Your task to perform on an android device: Open Reddit.com Image 0: 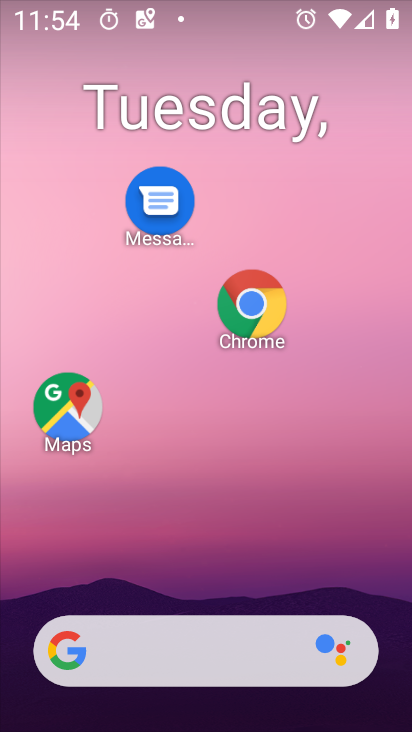
Step 0: drag from (329, 326) to (363, 198)
Your task to perform on an android device: Open Reddit.com Image 1: 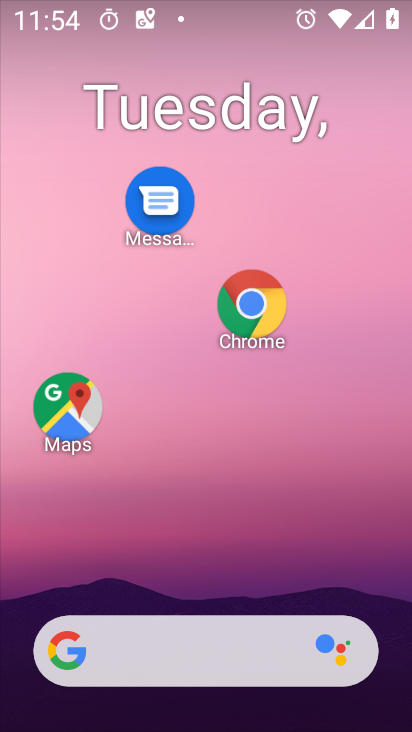
Step 1: drag from (279, 539) to (379, 175)
Your task to perform on an android device: Open Reddit.com Image 2: 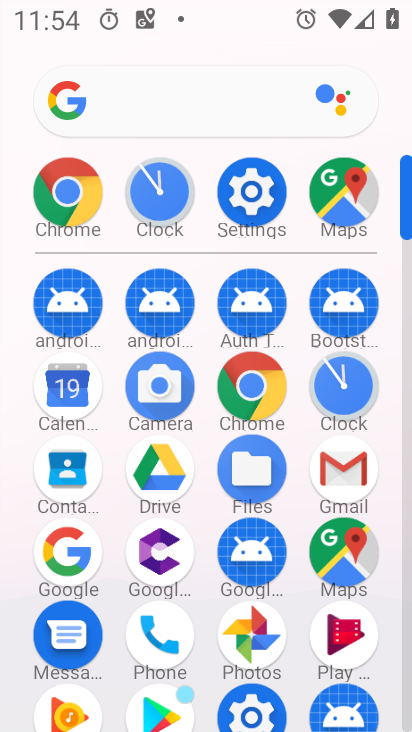
Step 2: click (67, 184)
Your task to perform on an android device: Open Reddit.com Image 3: 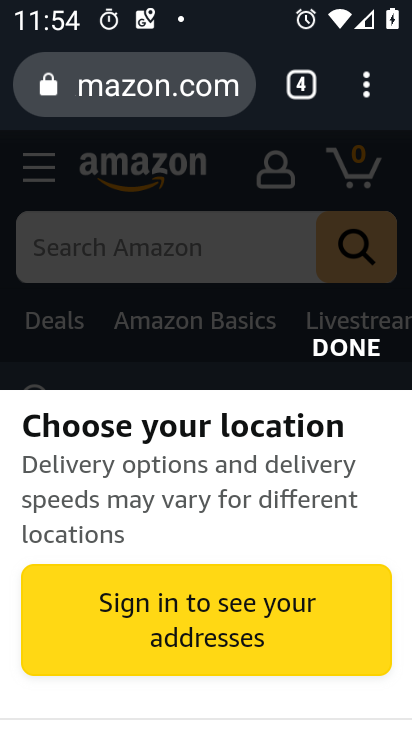
Step 3: click (370, 83)
Your task to perform on an android device: Open Reddit.com Image 4: 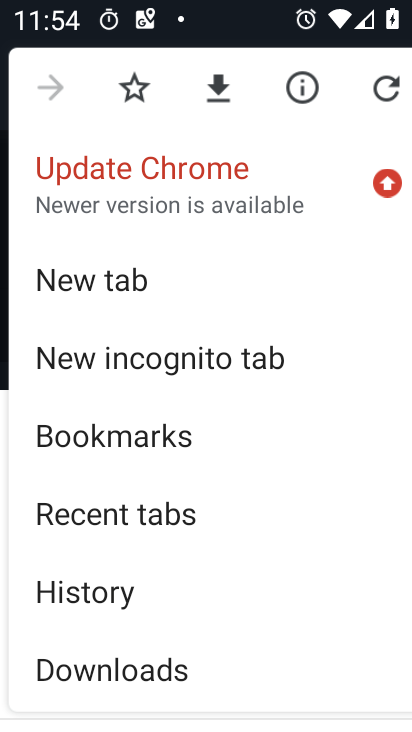
Step 4: click (162, 277)
Your task to perform on an android device: Open Reddit.com Image 5: 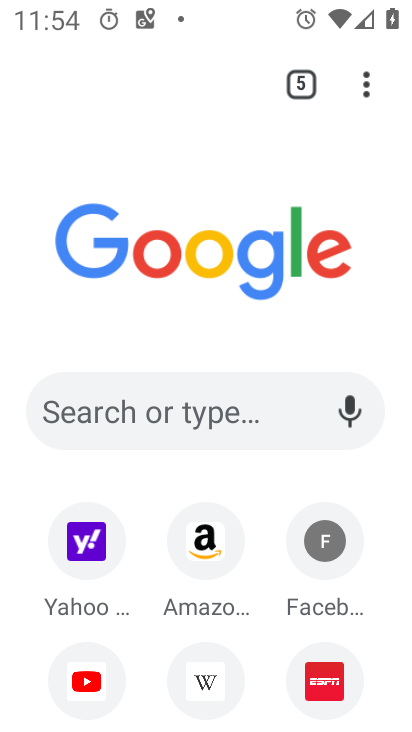
Step 5: click (148, 417)
Your task to perform on an android device: Open Reddit.com Image 6: 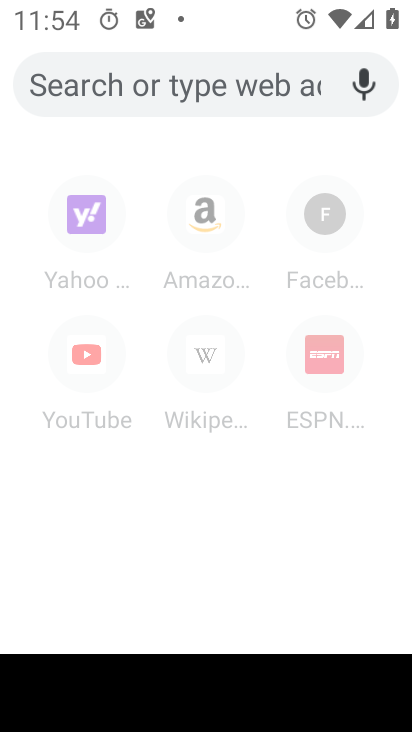
Step 6: type "Reddit.com"
Your task to perform on an android device: Open Reddit.com Image 7: 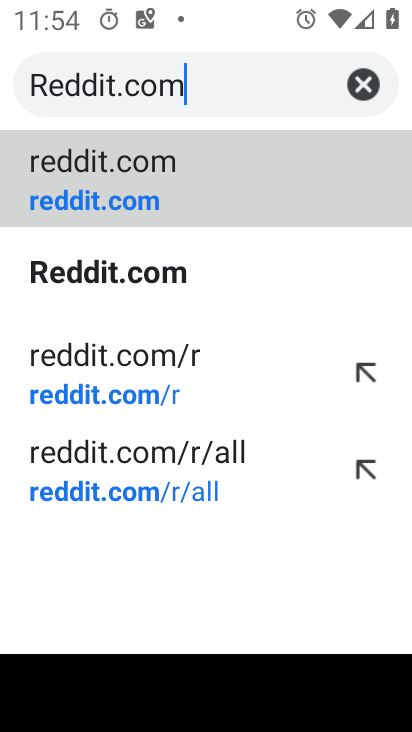
Step 7: click (161, 171)
Your task to perform on an android device: Open Reddit.com Image 8: 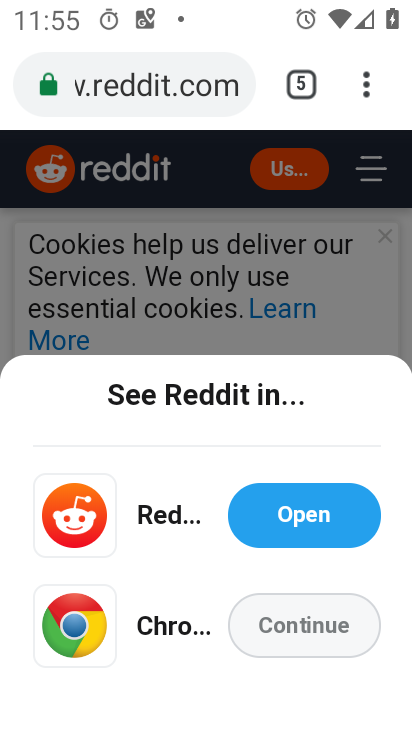
Step 8: task complete